Your task to perform on an android device: turn on bluetooth scan Image 0: 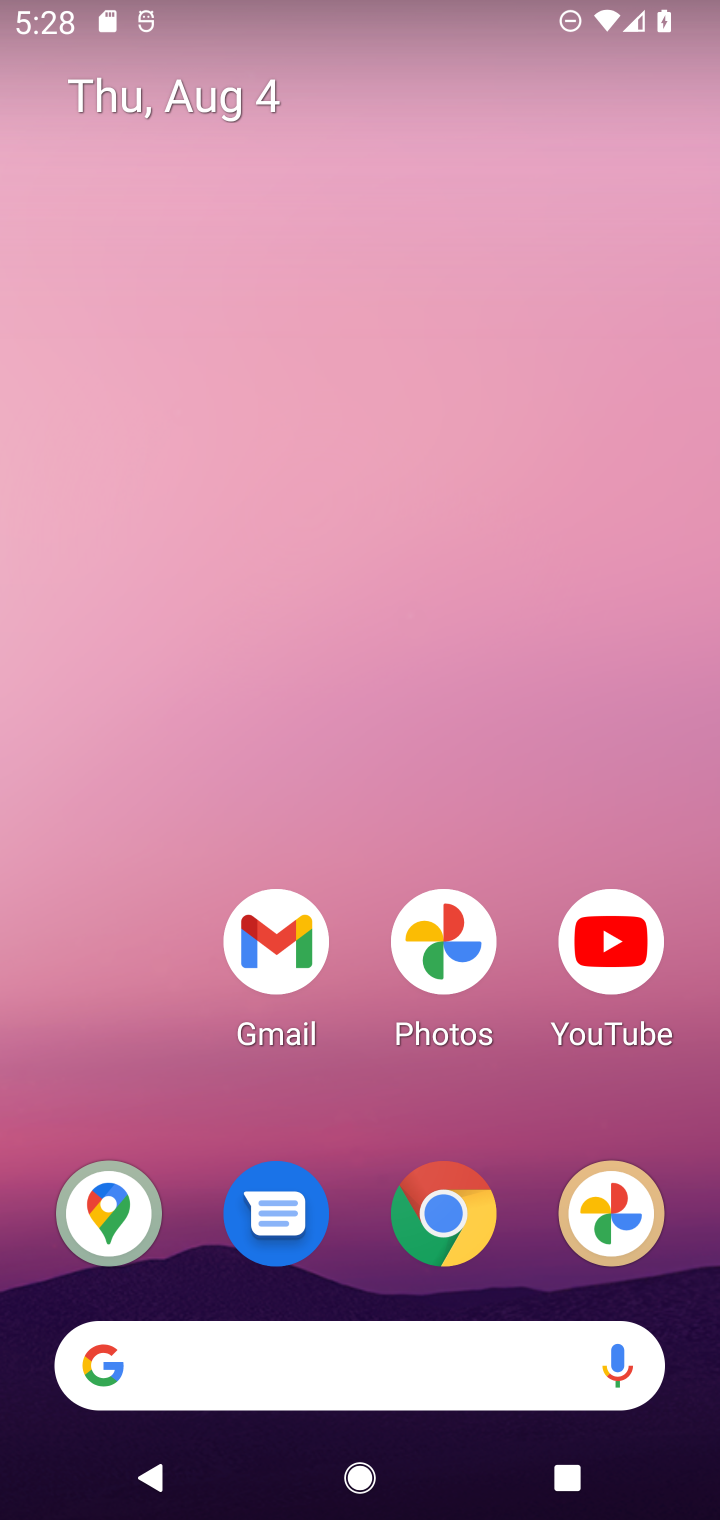
Step 0: press home button
Your task to perform on an android device: turn on bluetooth scan Image 1: 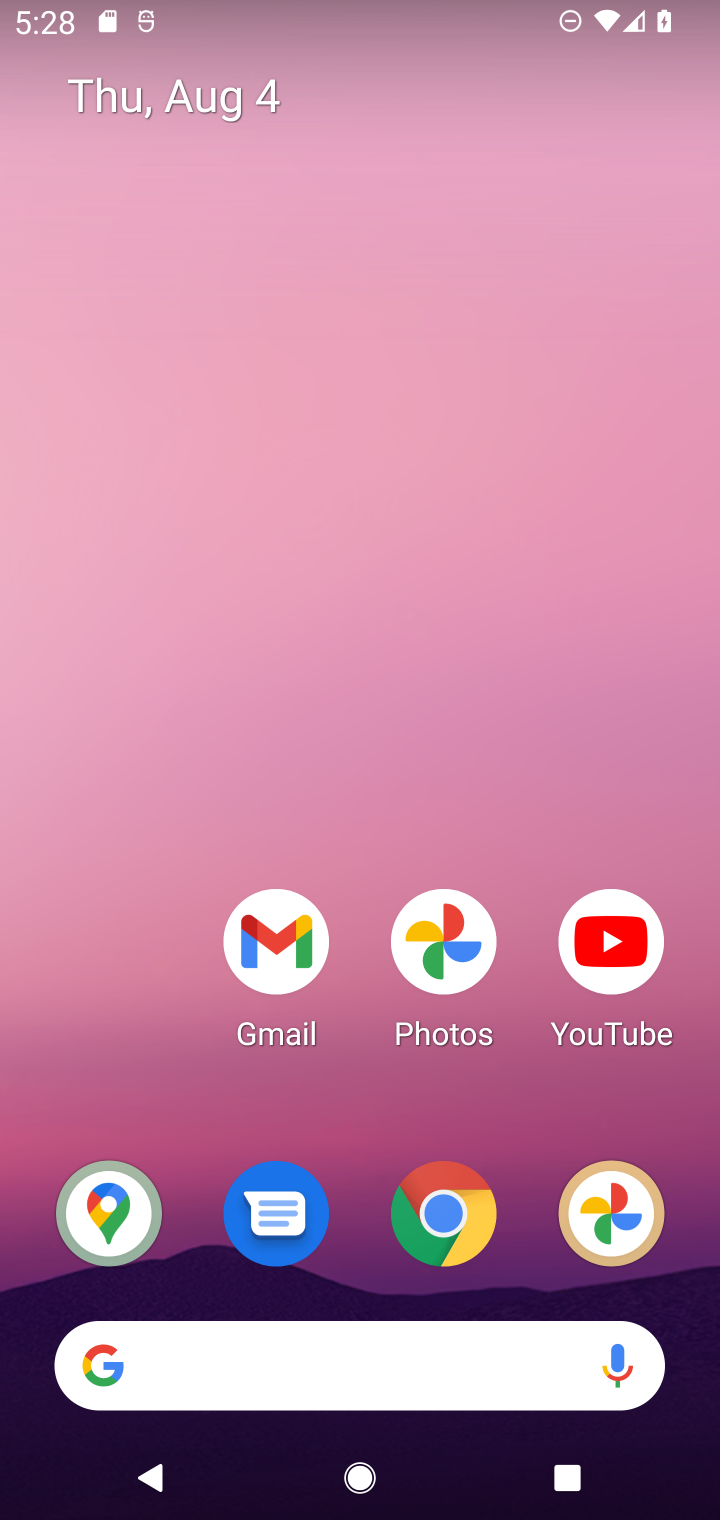
Step 1: drag from (174, 1139) to (139, 343)
Your task to perform on an android device: turn on bluetooth scan Image 2: 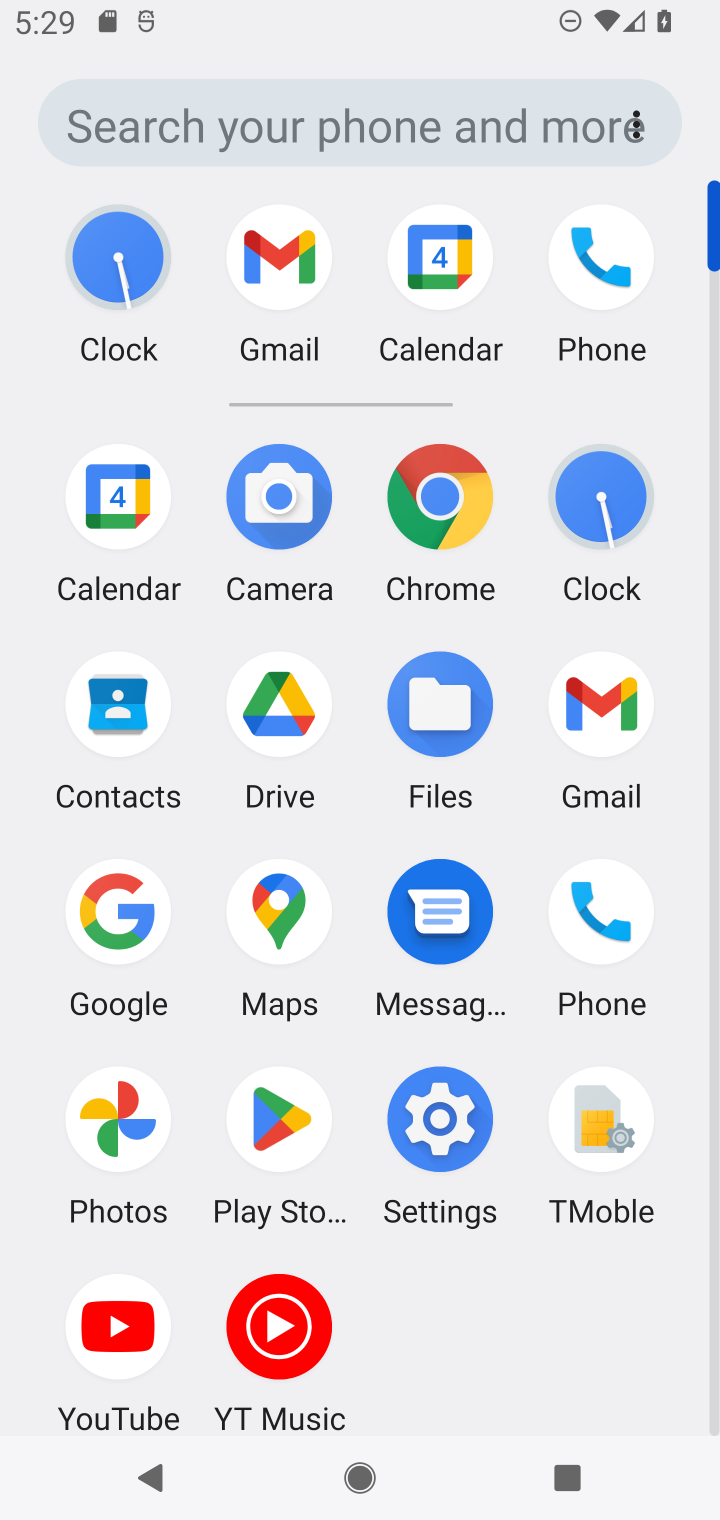
Step 2: click (451, 1141)
Your task to perform on an android device: turn on bluetooth scan Image 3: 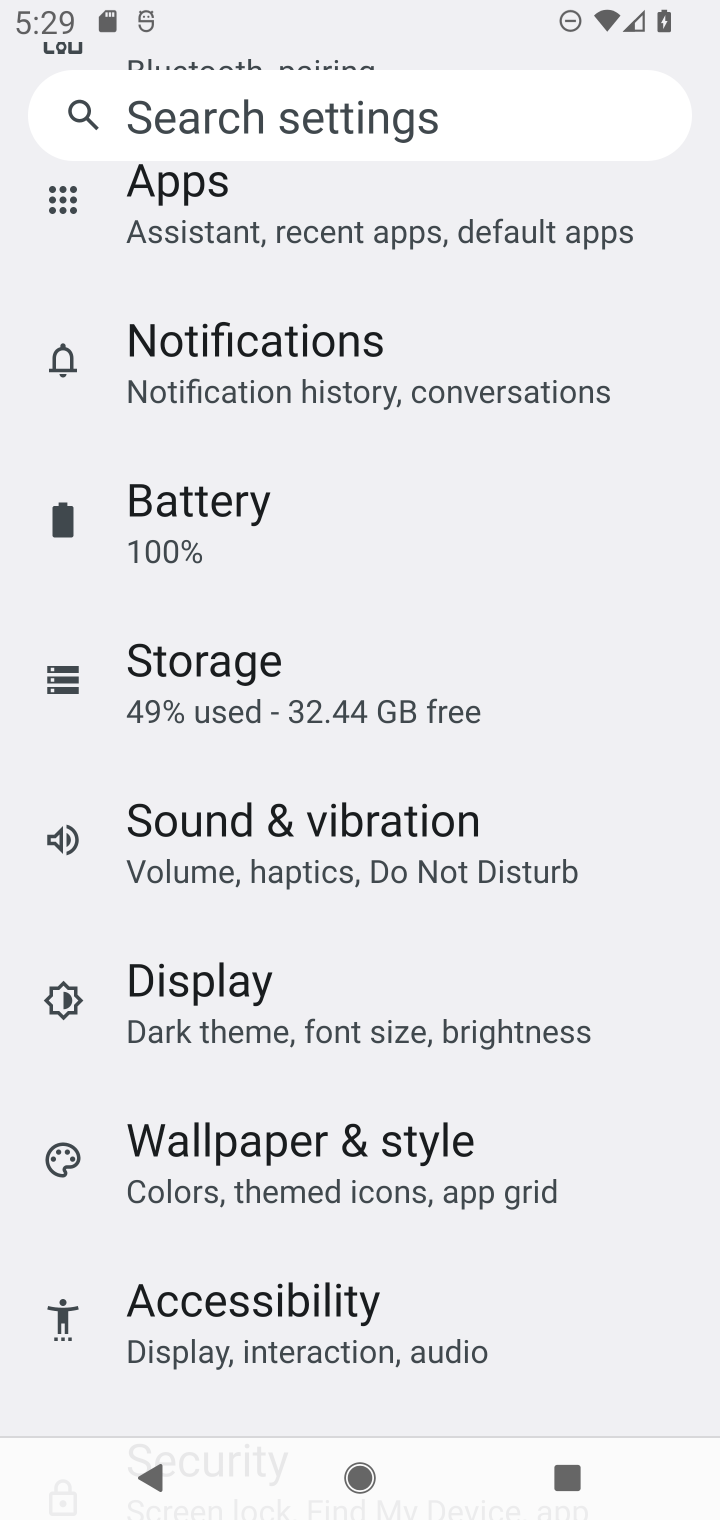
Step 3: drag from (600, 1260) to (645, 868)
Your task to perform on an android device: turn on bluetooth scan Image 4: 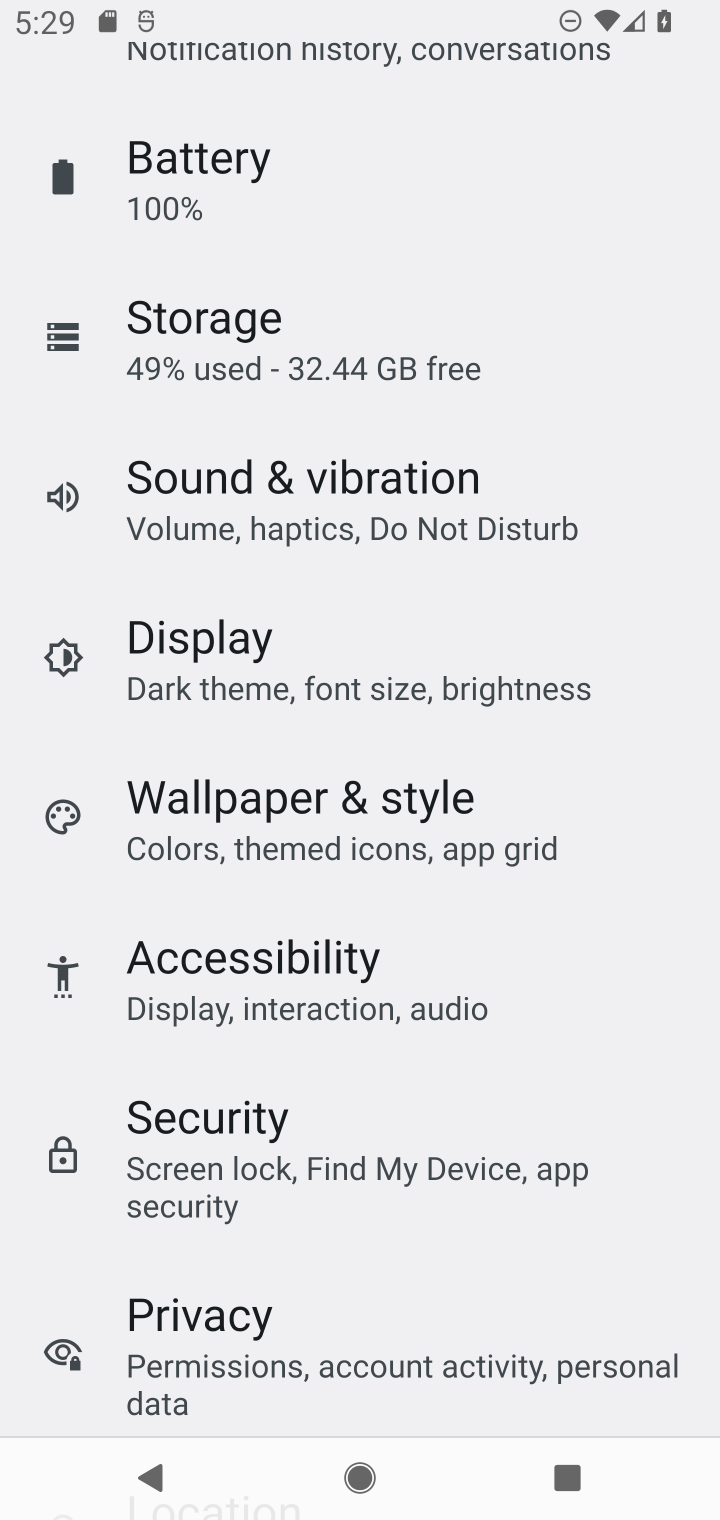
Step 4: drag from (638, 1237) to (627, 982)
Your task to perform on an android device: turn on bluetooth scan Image 5: 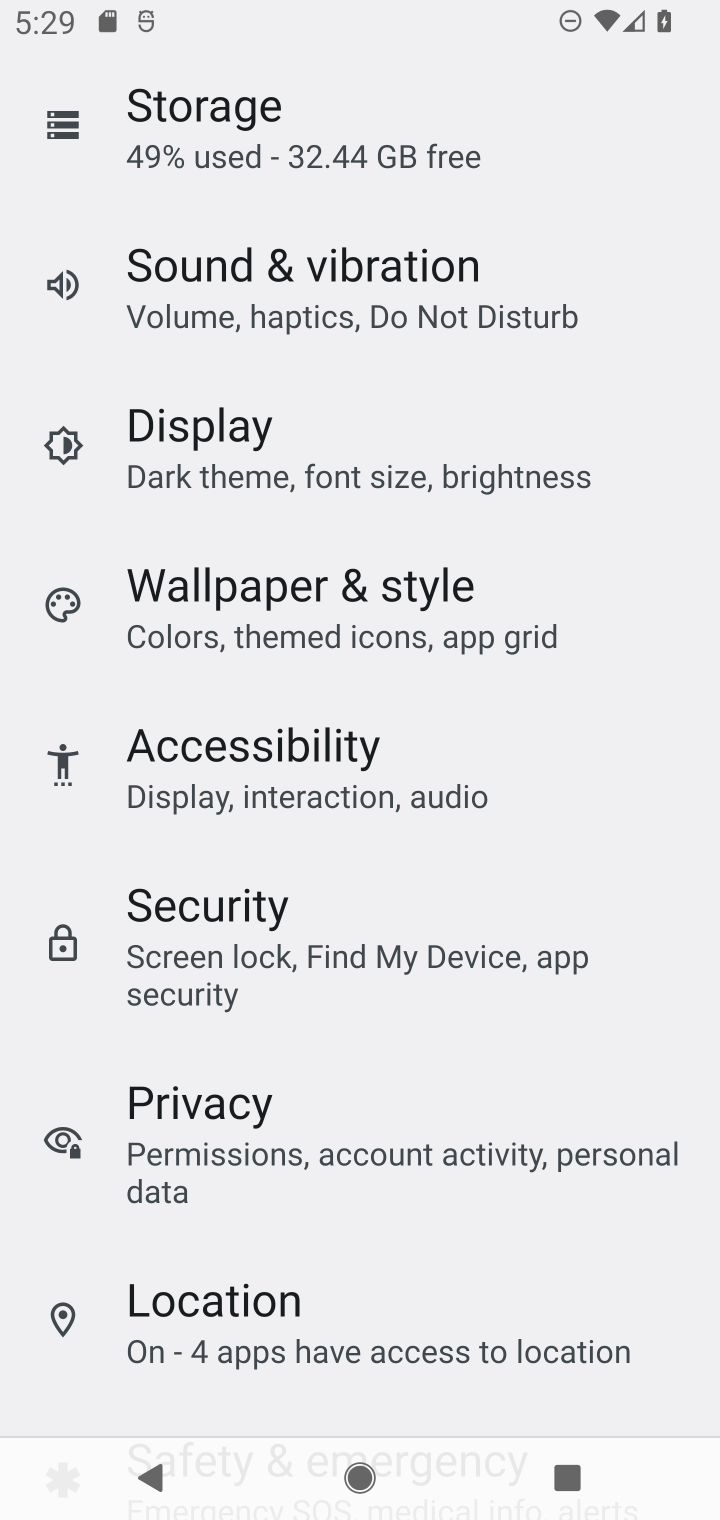
Step 5: drag from (597, 1276) to (616, 947)
Your task to perform on an android device: turn on bluetooth scan Image 6: 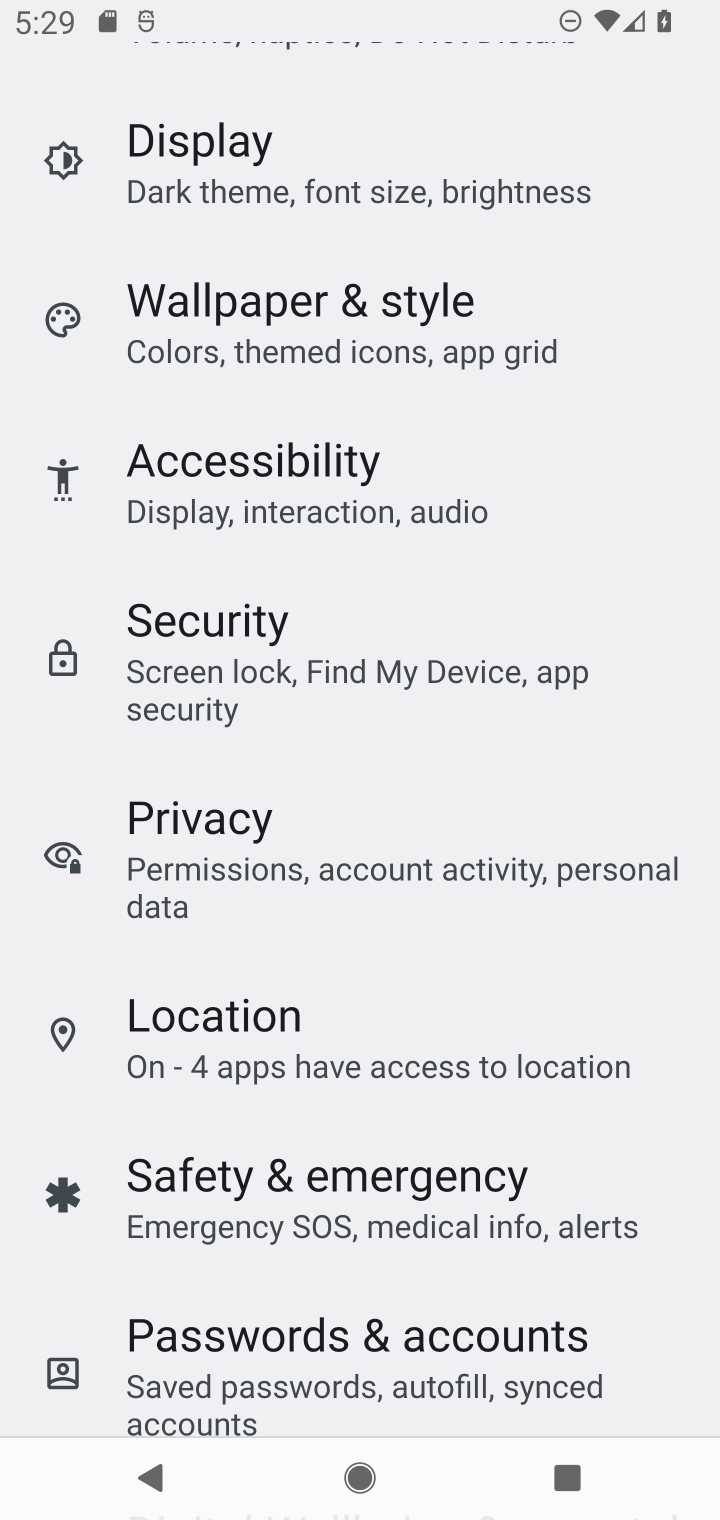
Step 6: drag from (645, 1349) to (636, 1016)
Your task to perform on an android device: turn on bluetooth scan Image 7: 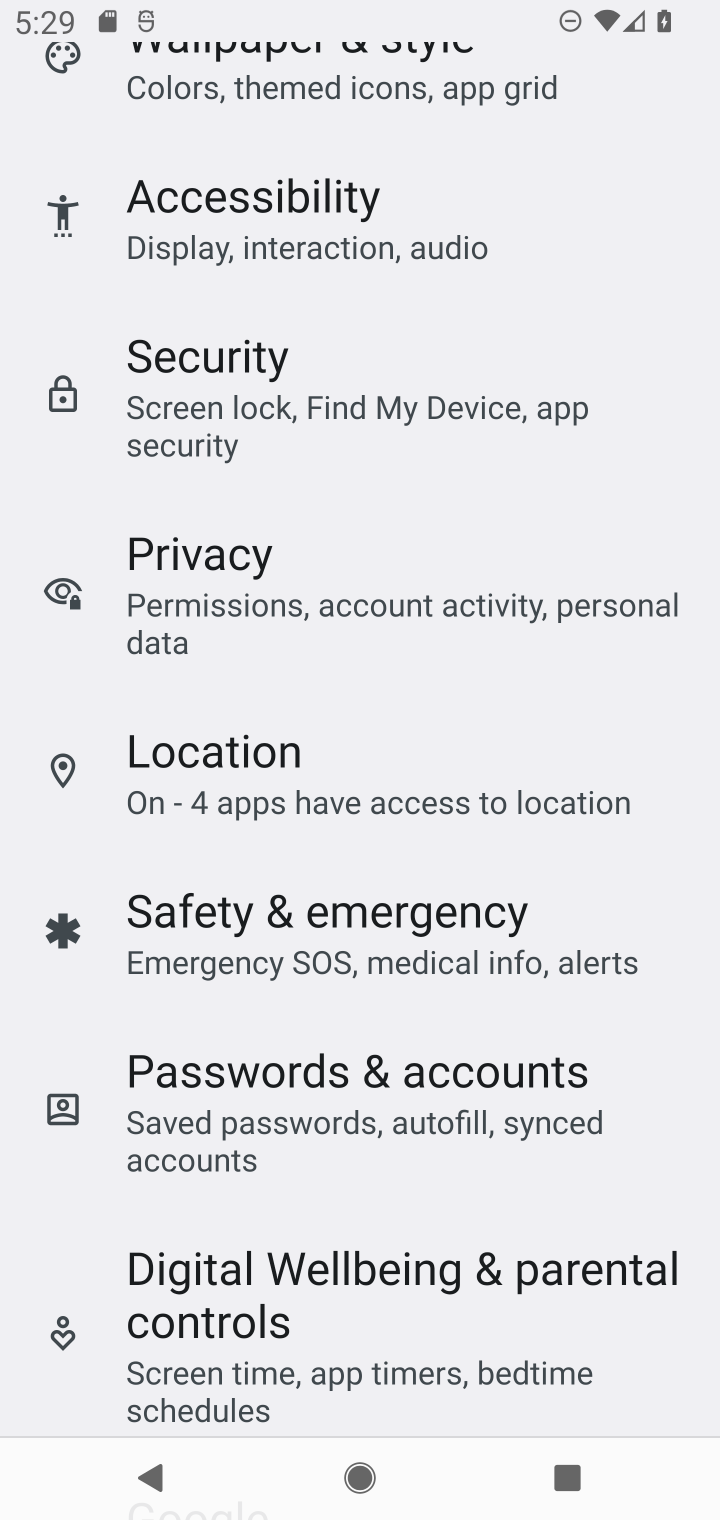
Step 7: drag from (628, 1349) to (622, 977)
Your task to perform on an android device: turn on bluetooth scan Image 8: 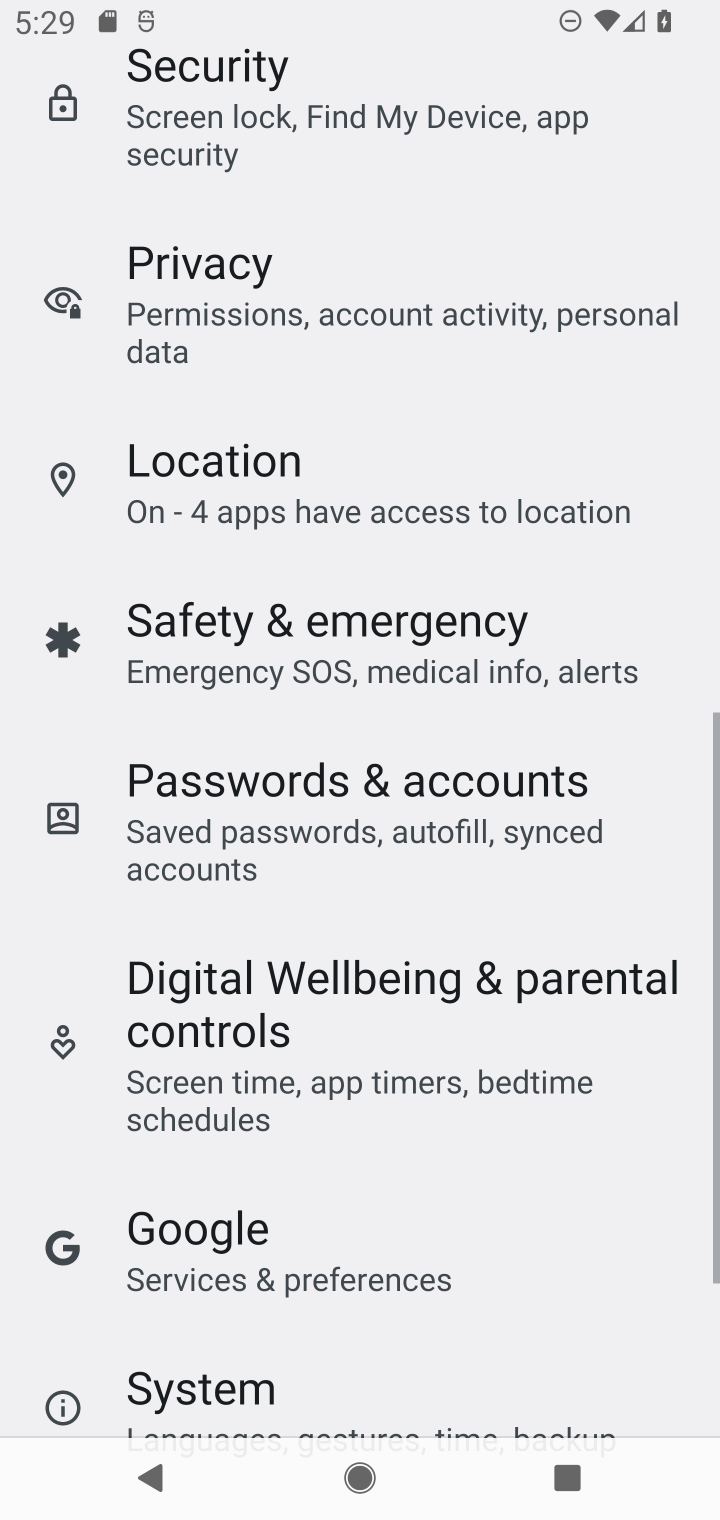
Step 8: drag from (621, 1291) to (616, 850)
Your task to perform on an android device: turn on bluetooth scan Image 9: 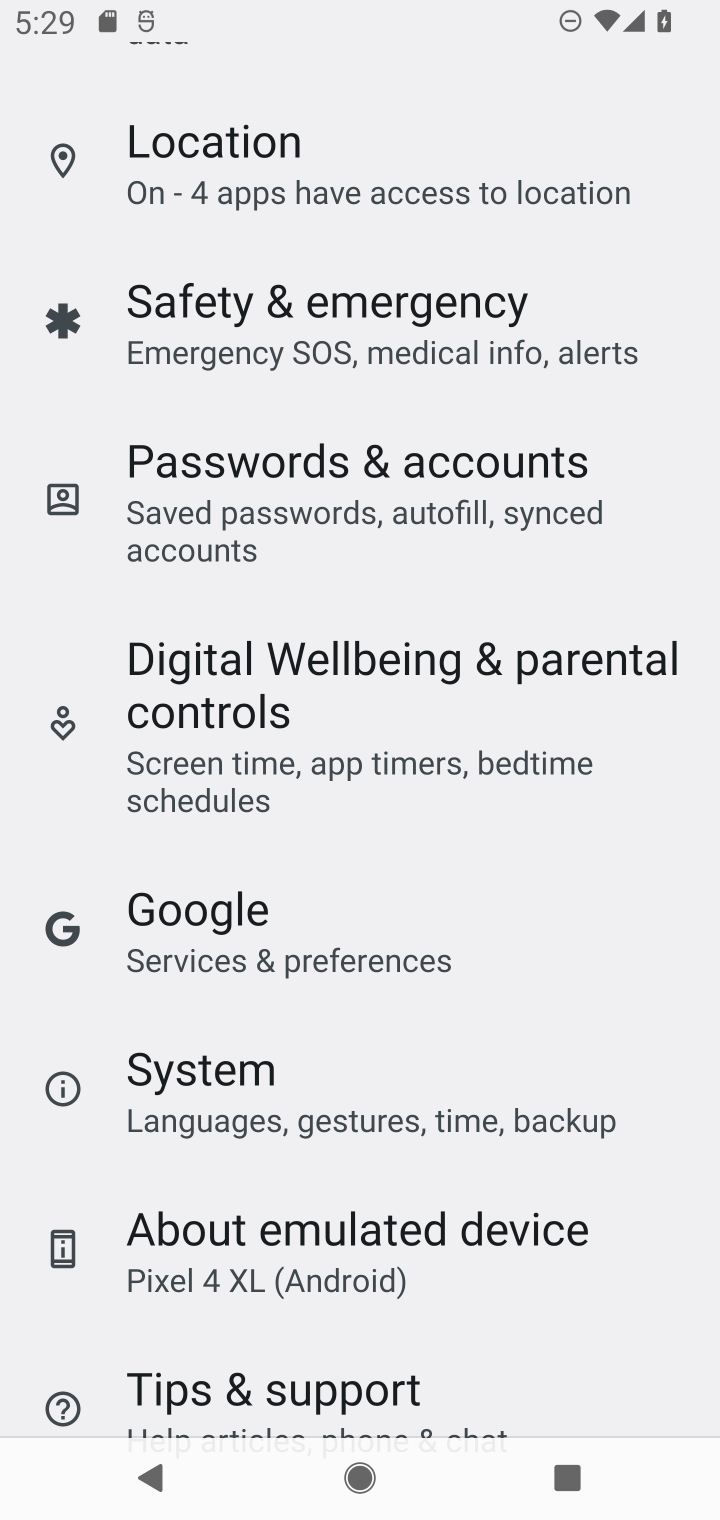
Step 9: drag from (601, 1319) to (599, 820)
Your task to perform on an android device: turn on bluetooth scan Image 10: 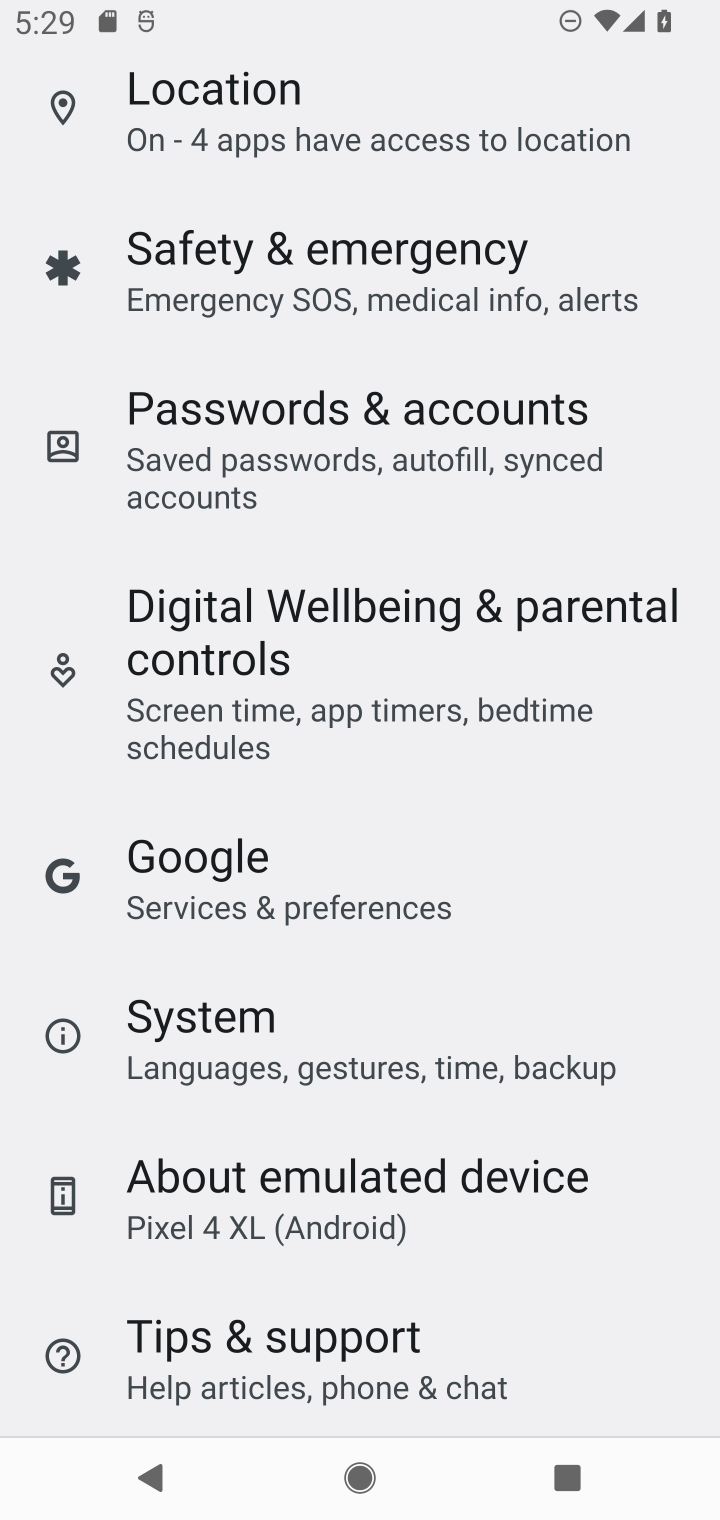
Step 10: drag from (615, 754) to (647, 1079)
Your task to perform on an android device: turn on bluetooth scan Image 11: 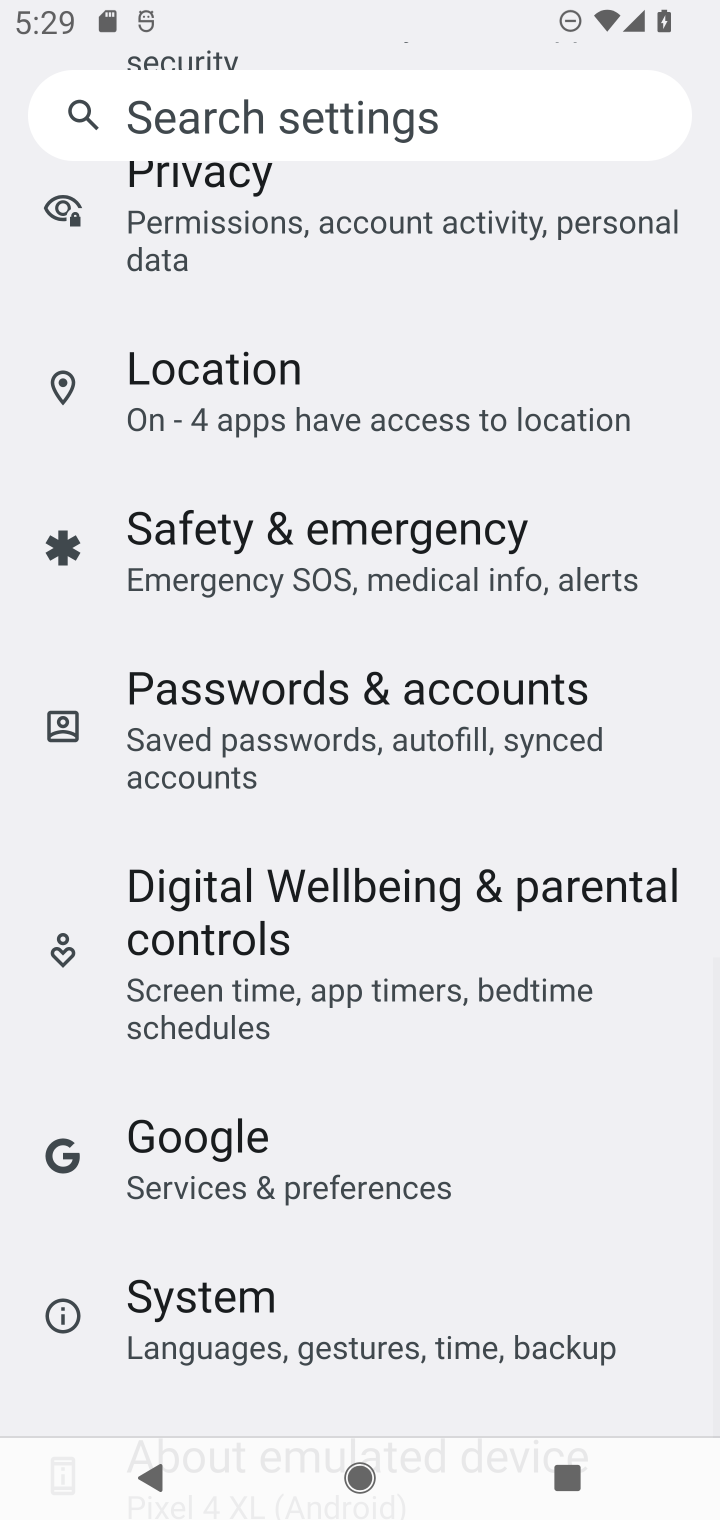
Step 11: drag from (659, 453) to (649, 846)
Your task to perform on an android device: turn on bluetooth scan Image 12: 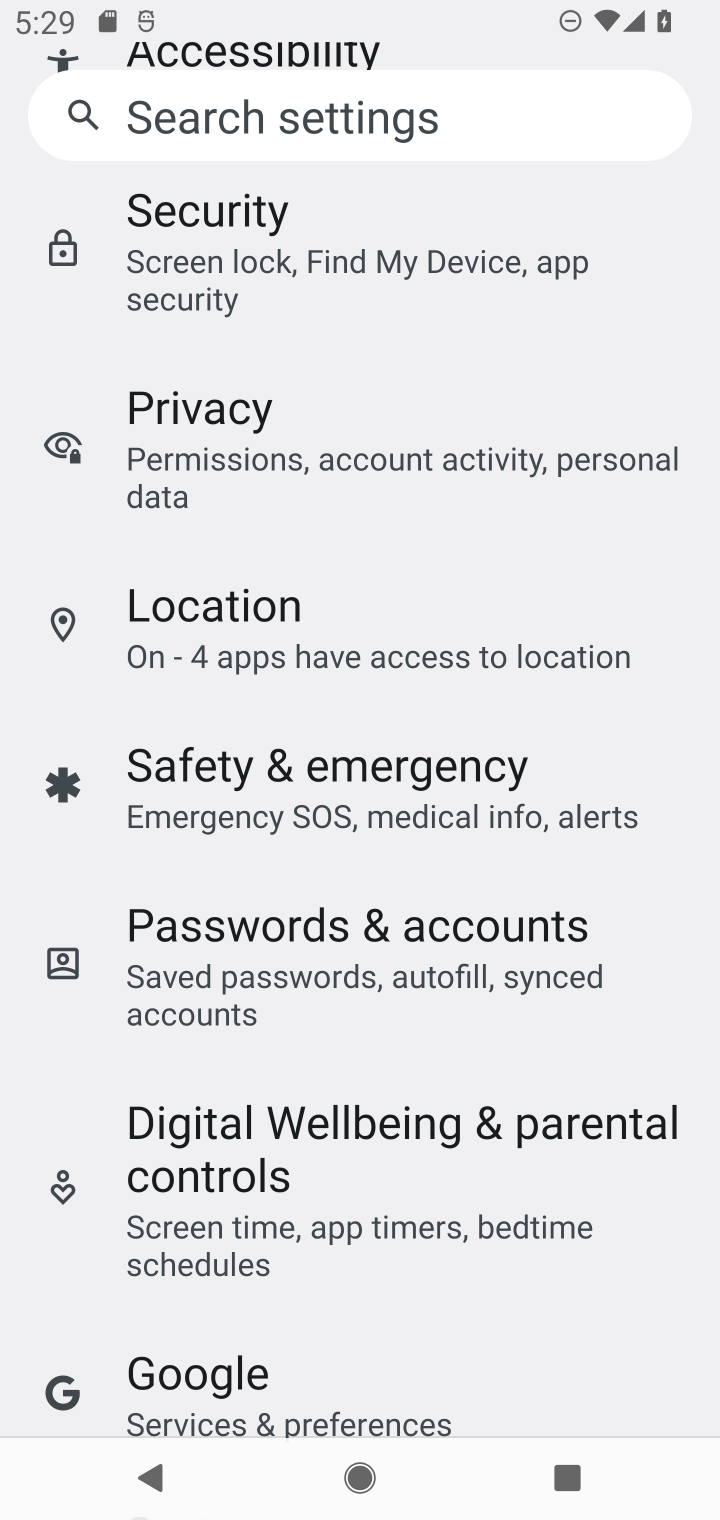
Step 12: drag from (649, 340) to (648, 760)
Your task to perform on an android device: turn on bluetooth scan Image 13: 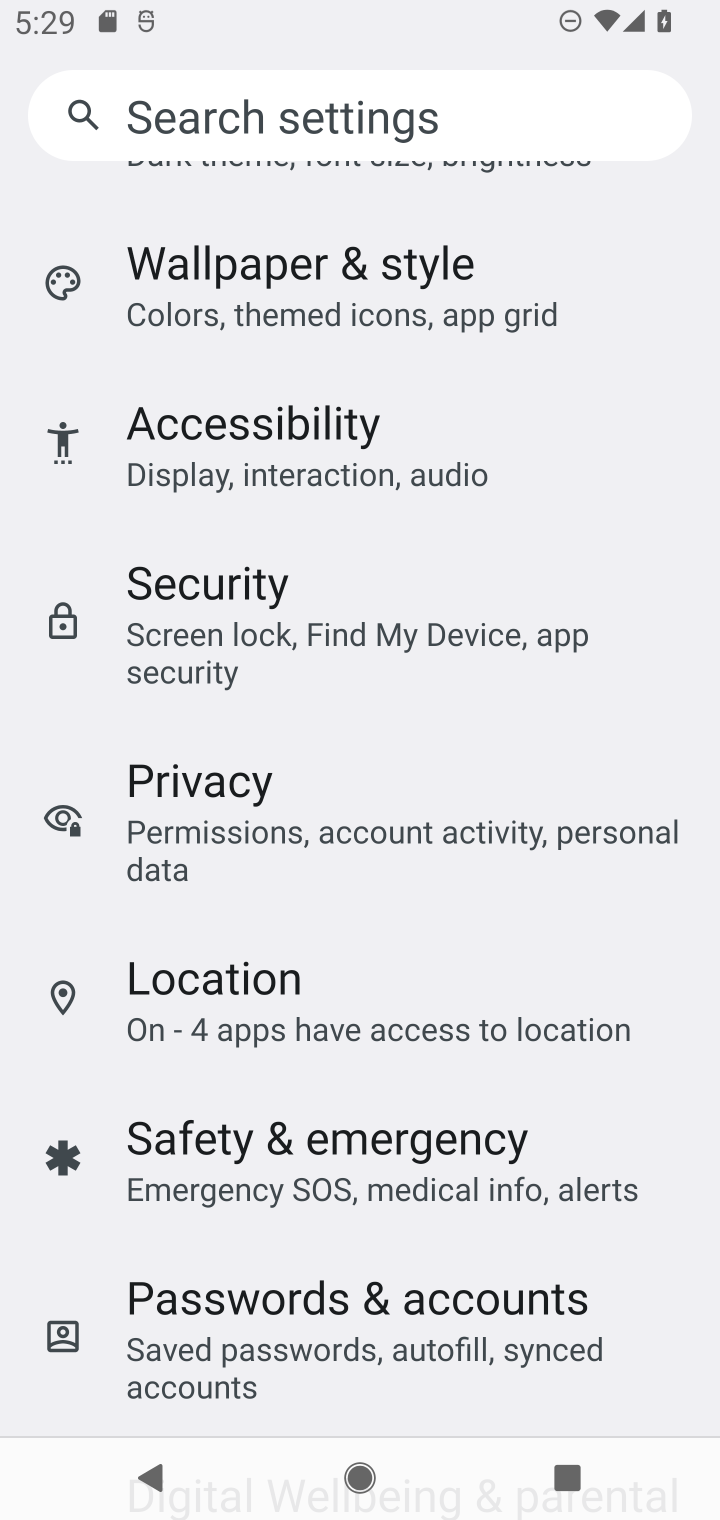
Step 13: drag from (621, 349) to (630, 840)
Your task to perform on an android device: turn on bluetooth scan Image 14: 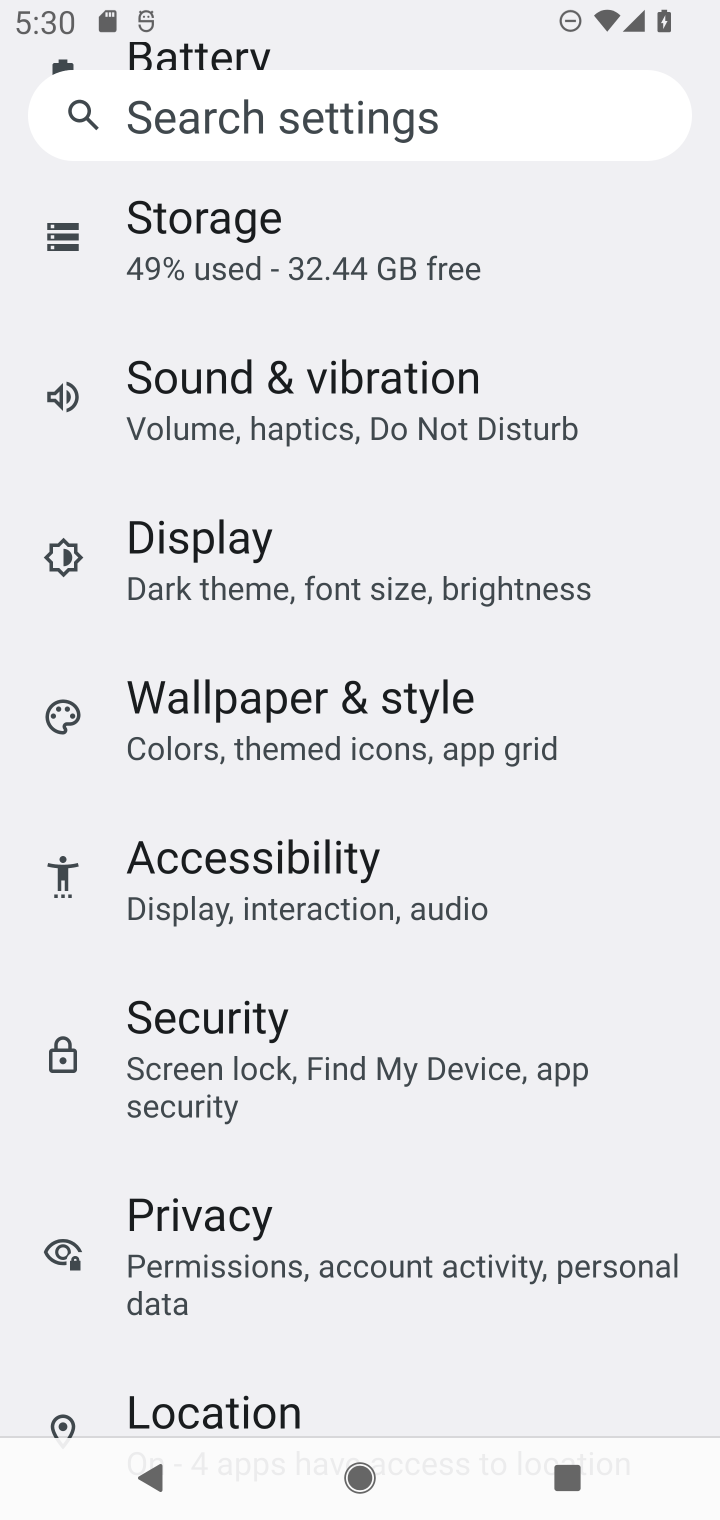
Step 14: drag from (589, 1156) to (583, 606)
Your task to perform on an android device: turn on bluetooth scan Image 15: 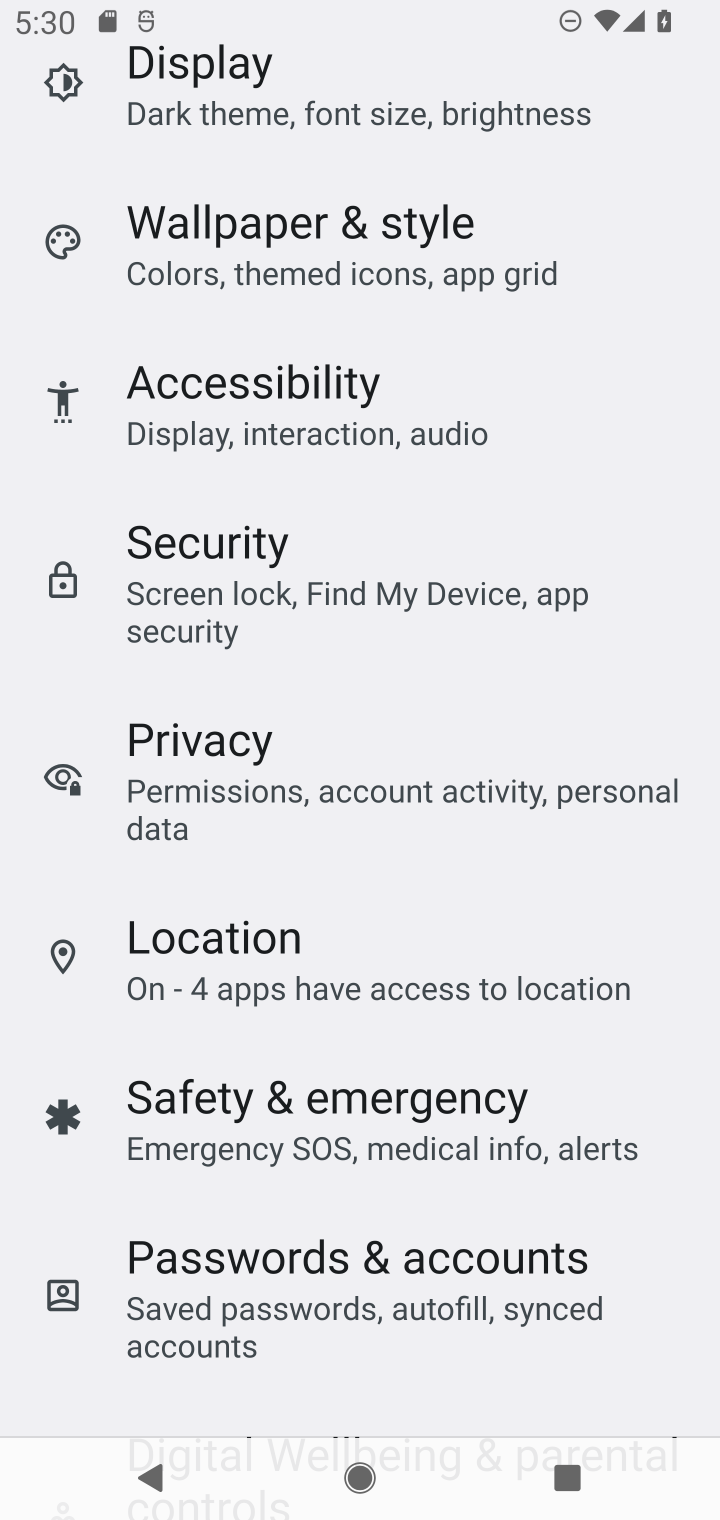
Step 15: click (522, 997)
Your task to perform on an android device: turn on bluetooth scan Image 16: 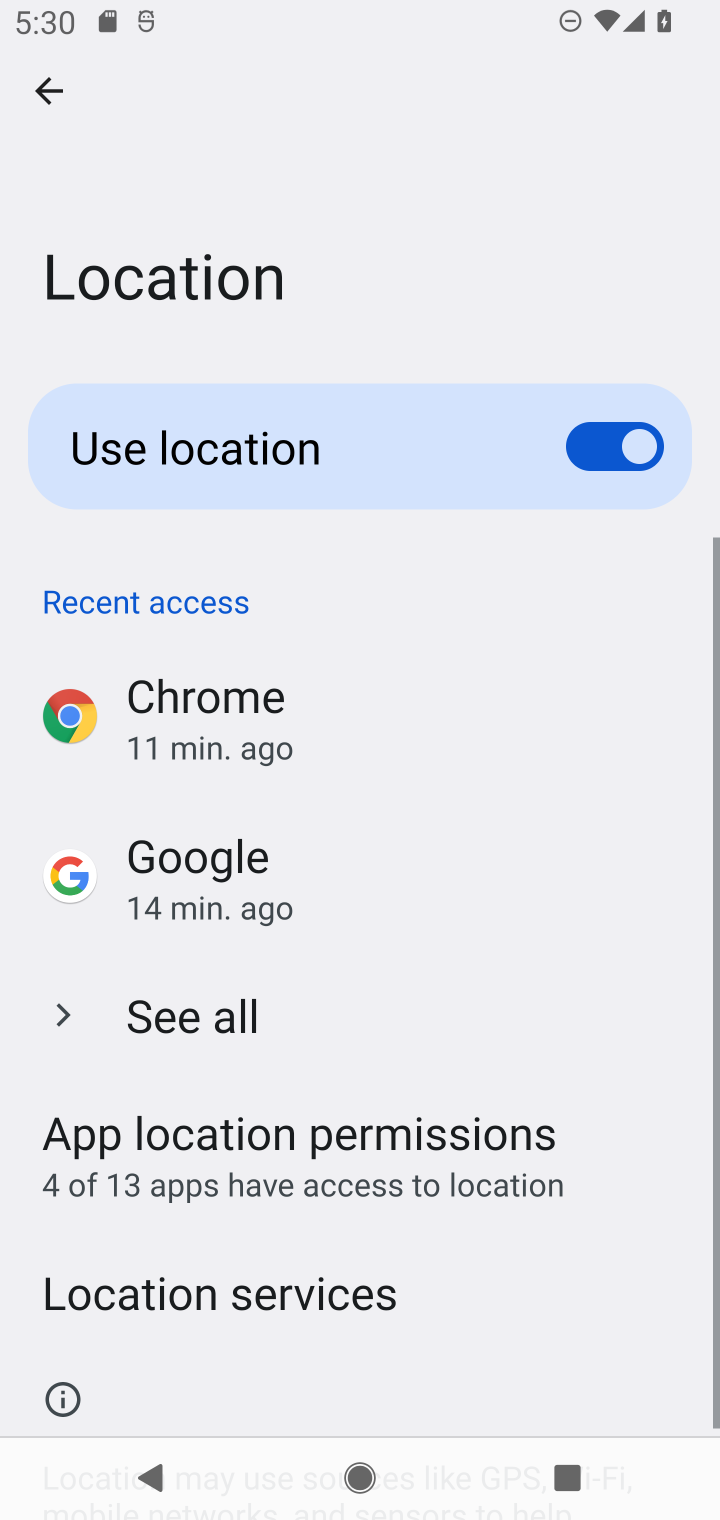
Step 16: drag from (527, 1266) to (543, 715)
Your task to perform on an android device: turn on bluetooth scan Image 17: 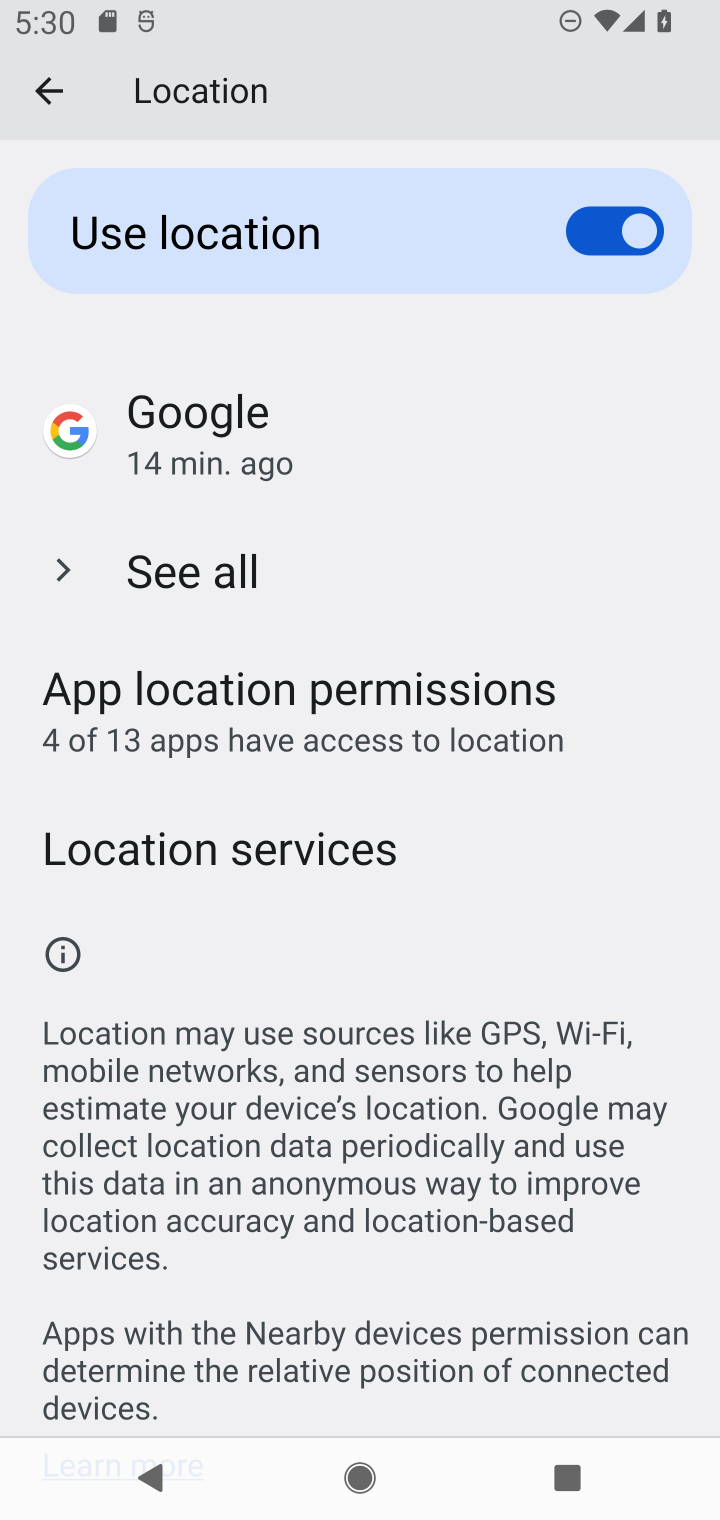
Step 17: click (418, 855)
Your task to perform on an android device: turn on bluetooth scan Image 18: 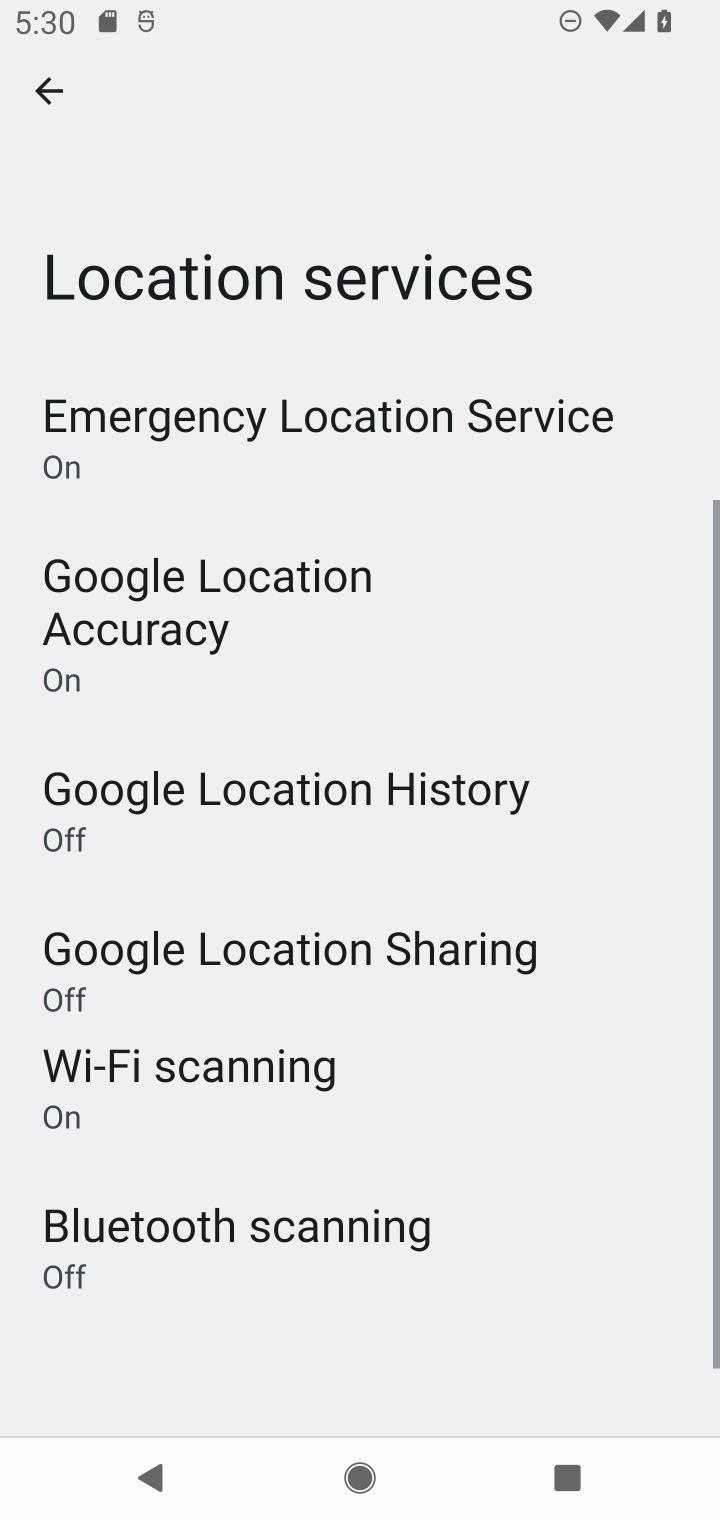
Step 18: drag from (535, 1239) to (557, 824)
Your task to perform on an android device: turn on bluetooth scan Image 19: 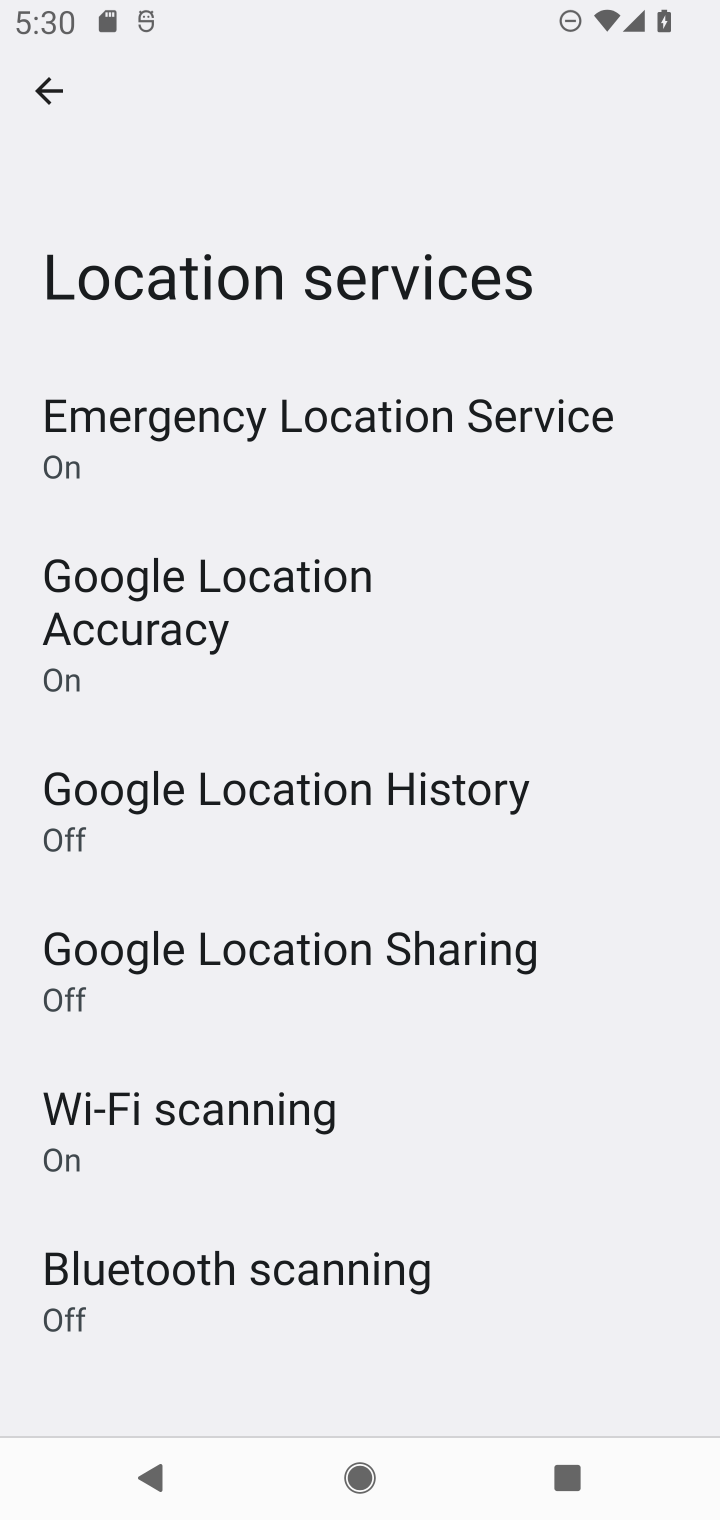
Step 19: click (292, 1294)
Your task to perform on an android device: turn on bluetooth scan Image 20: 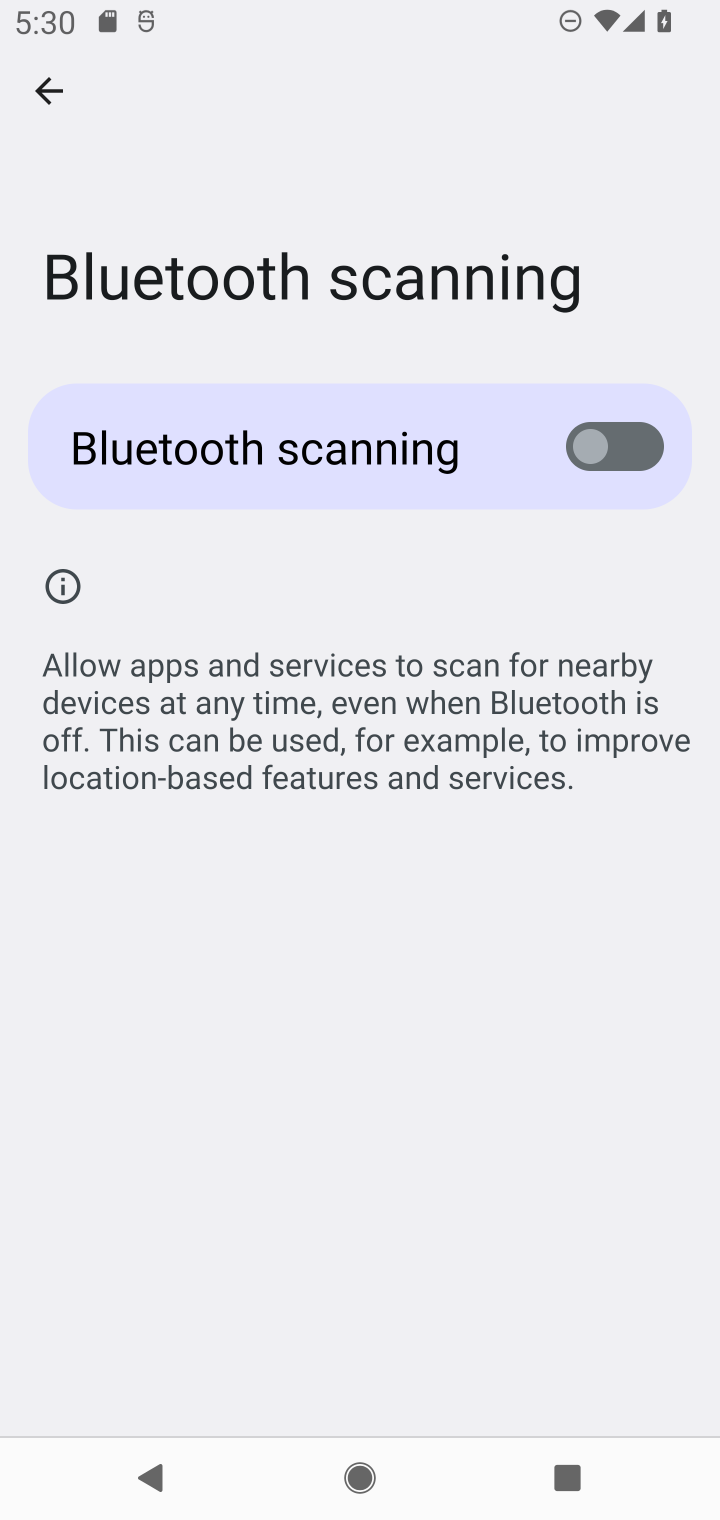
Step 20: click (580, 438)
Your task to perform on an android device: turn on bluetooth scan Image 21: 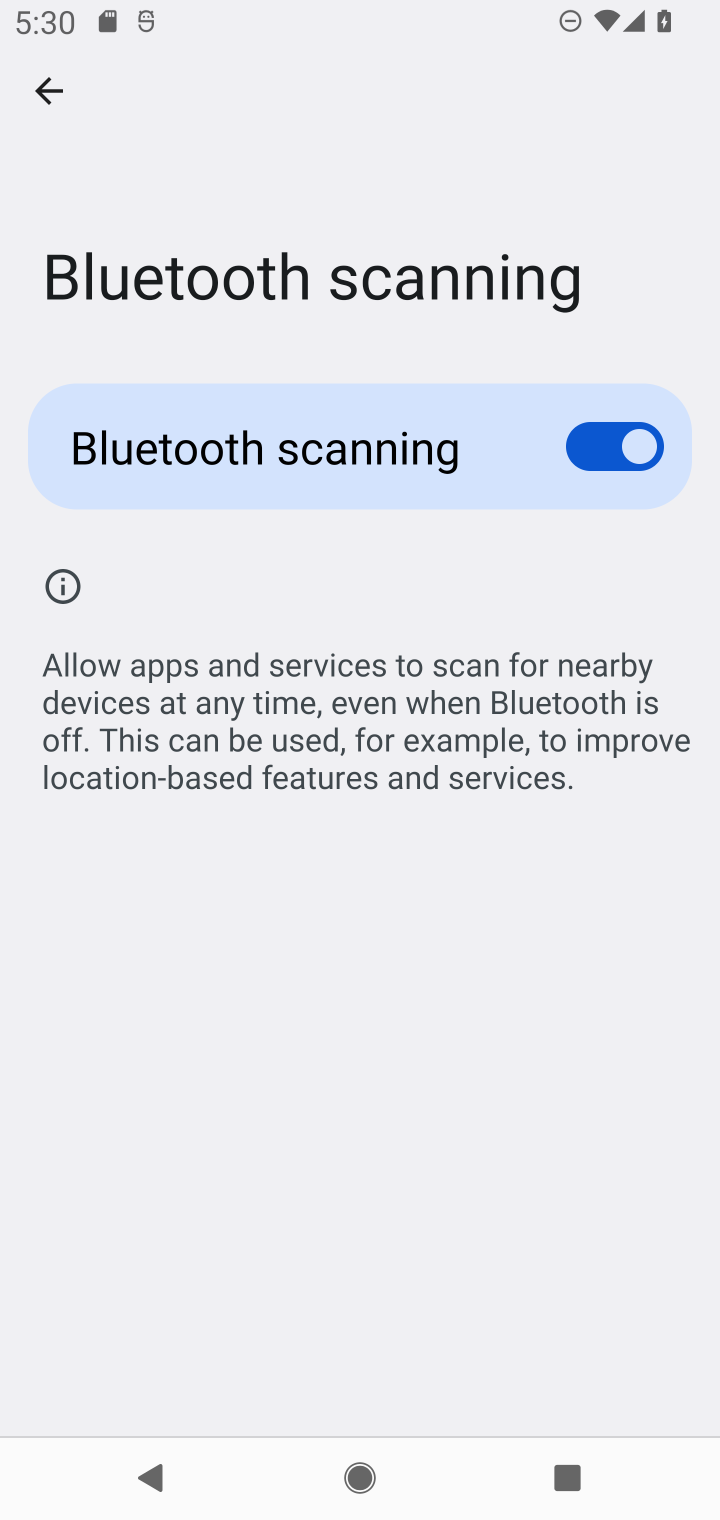
Step 21: task complete